Your task to perform on an android device: Open ESPN.com Image 0: 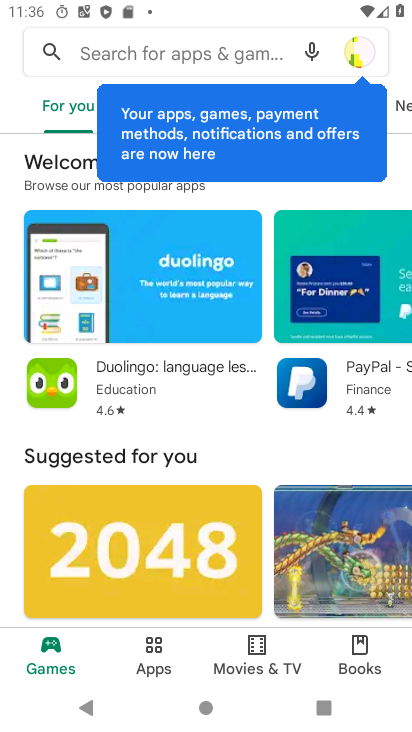
Step 0: press home button
Your task to perform on an android device: Open ESPN.com Image 1: 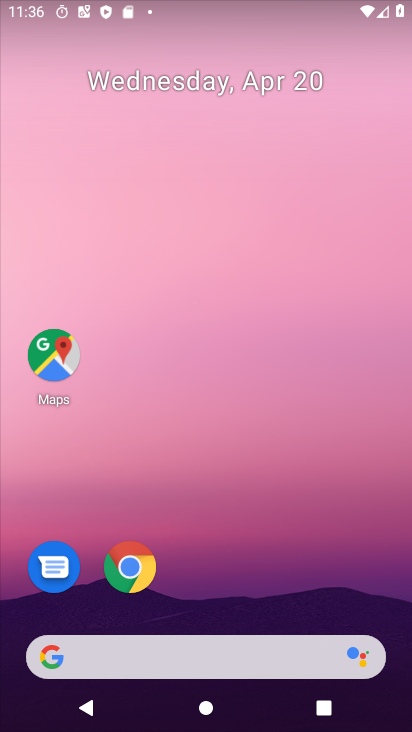
Step 1: click (150, 574)
Your task to perform on an android device: Open ESPN.com Image 2: 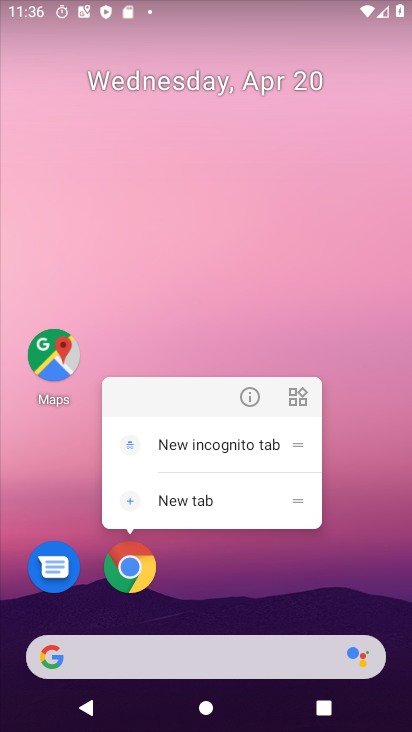
Step 2: click (251, 401)
Your task to perform on an android device: Open ESPN.com Image 3: 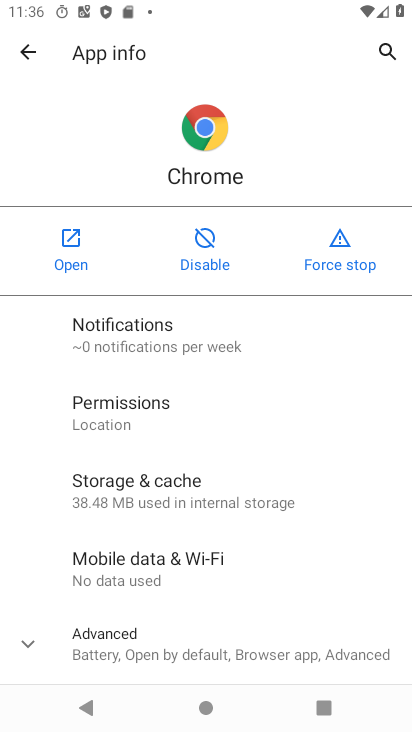
Step 3: click (89, 258)
Your task to perform on an android device: Open ESPN.com Image 4: 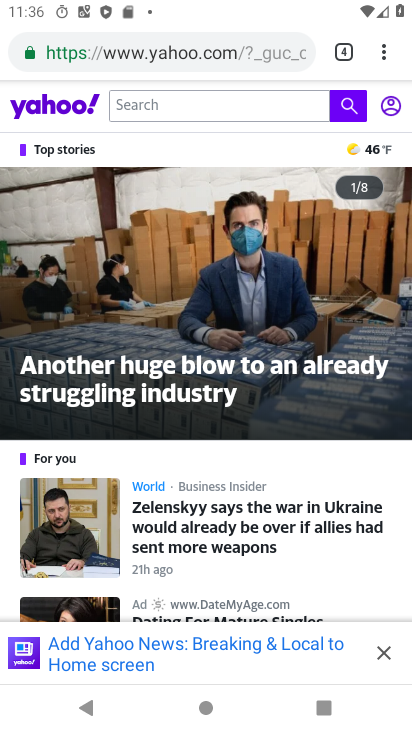
Step 4: click (346, 57)
Your task to perform on an android device: Open ESPN.com Image 5: 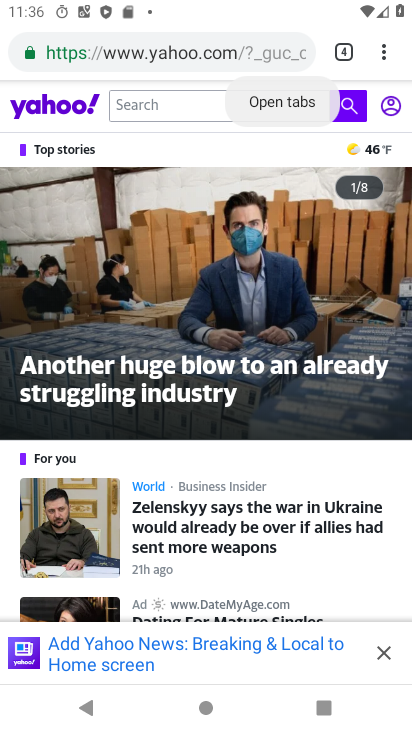
Step 5: click (342, 50)
Your task to perform on an android device: Open ESPN.com Image 6: 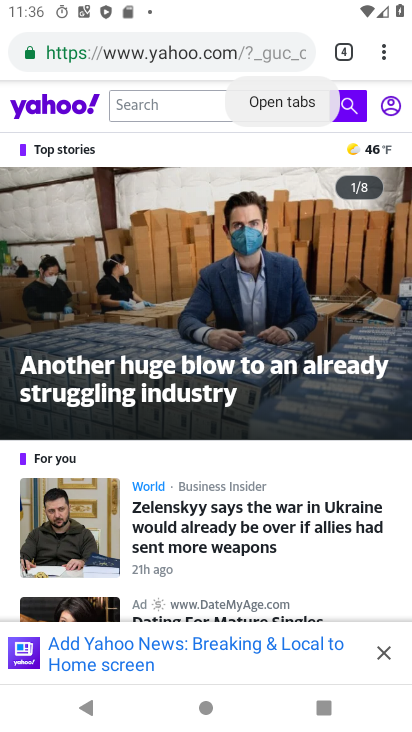
Step 6: click (390, 49)
Your task to perform on an android device: Open ESPN.com Image 7: 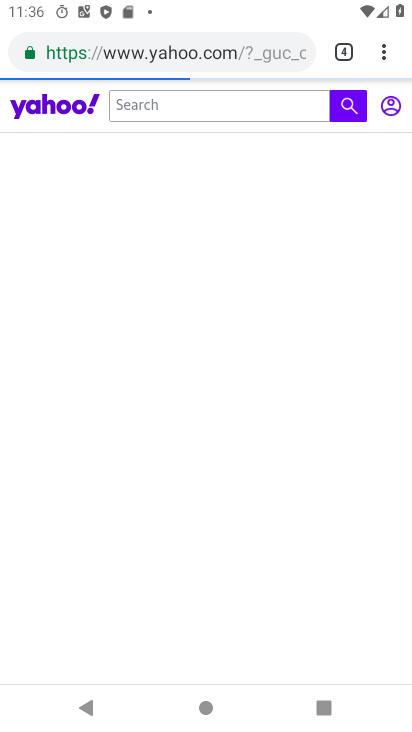
Step 7: click (382, 58)
Your task to perform on an android device: Open ESPN.com Image 8: 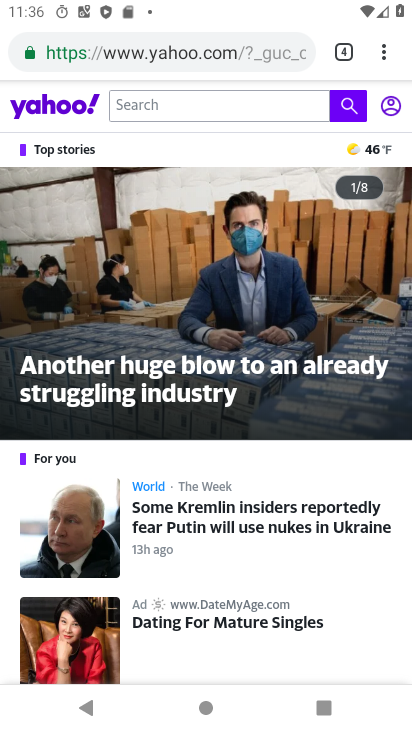
Step 8: click (388, 52)
Your task to perform on an android device: Open ESPN.com Image 9: 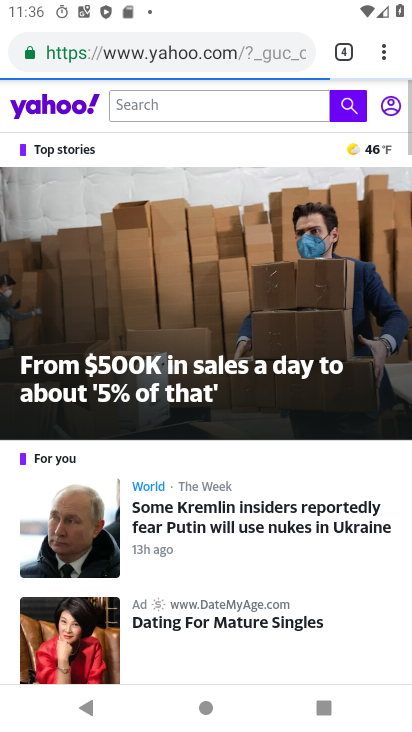
Step 9: click (389, 52)
Your task to perform on an android device: Open ESPN.com Image 10: 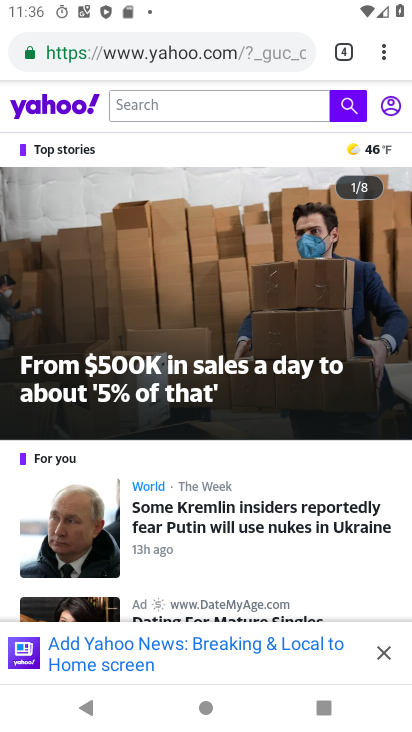
Step 10: click (352, 52)
Your task to perform on an android device: Open ESPN.com Image 11: 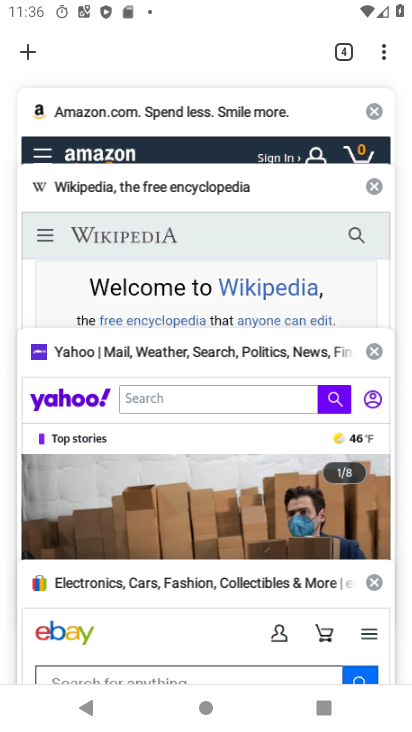
Step 11: click (42, 52)
Your task to perform on an android device: Open ESPN.com Image 12: 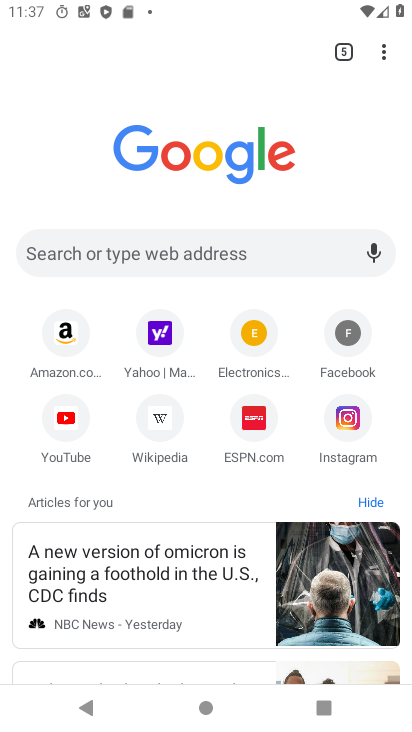
Step 12: click (256, 256)
Your task to perform on an android device: Open ESPN.com Image 13: 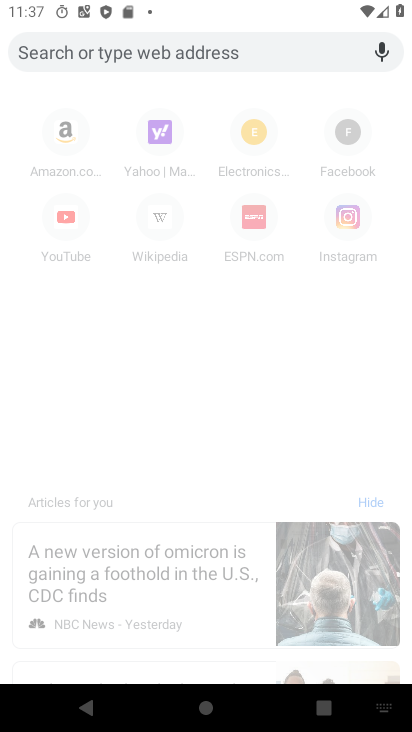
Step 13: type "ESPN.com"
Your task to perform on an android device: Open ESPN.com Image 14: 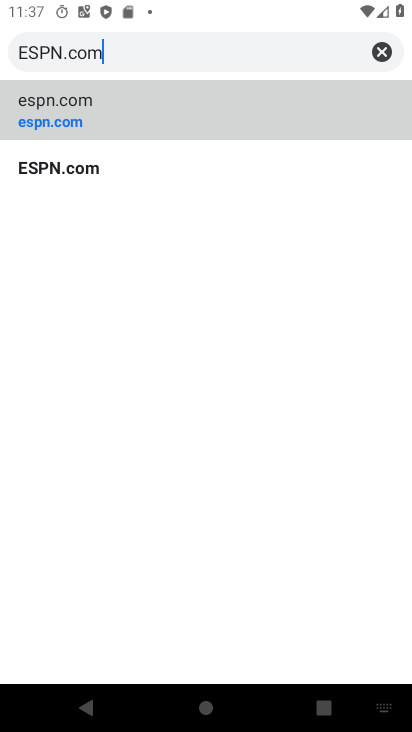
Step 14: type ""
Your task to perform on an android device: Open ESPN.com Image 15: 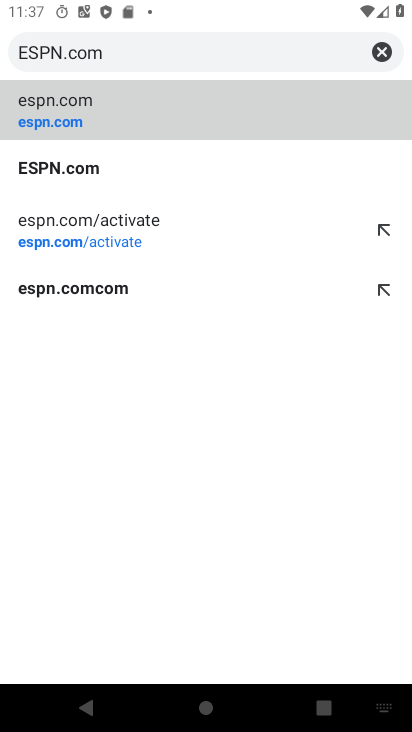
Step 15: click (125, 120)
Your task to perform on an android device: Open ESPN.com Image 16: 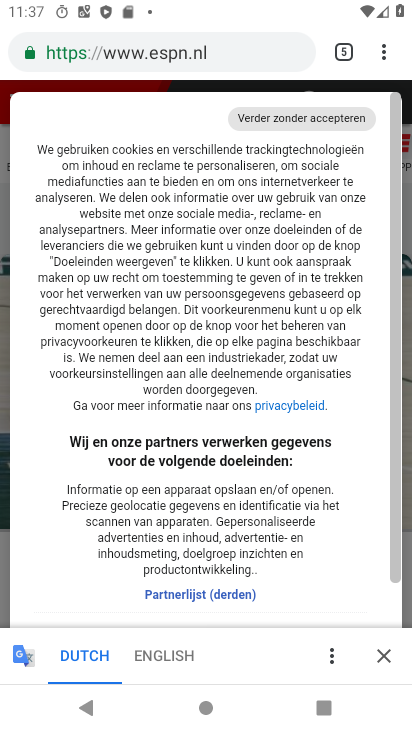
Step 16: task complete